Your task to perform on an android device: change your default location settings in chrome Image 0: 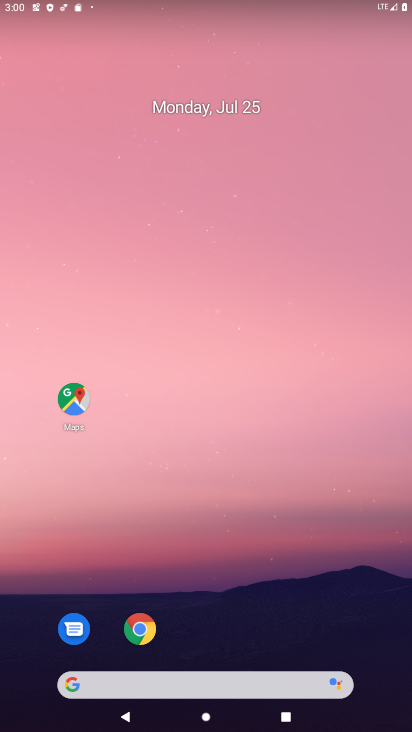
Step 0: drag from (214, 648) to (296, 229)
Your task to perform on an android device: change your default location settings in chrome Image 1: 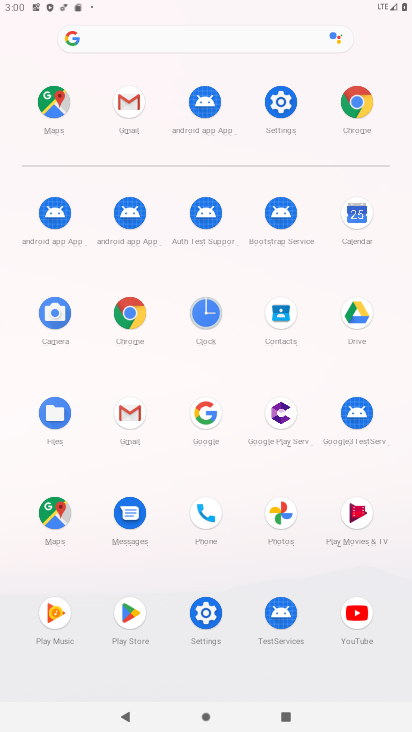
Step 1: click (125, 302)
Your task to perform on an android device: change your default location settings in chrome Image 2: 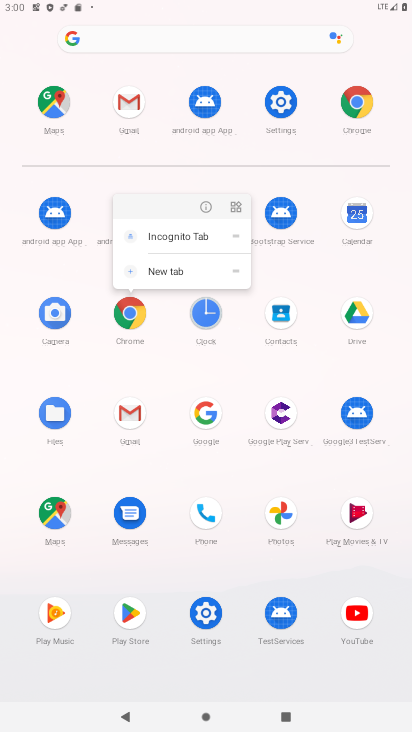
Step 2: click (201, 205)
Your task to perform on an android device: change your default location settings in chrome Image 3: 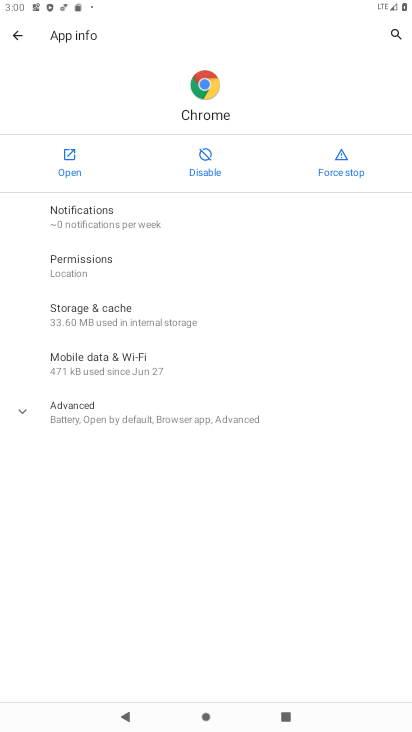
Step 3: click (68, 159)
Your task to perform on an android device: change your default location settings in chrome Image 4: 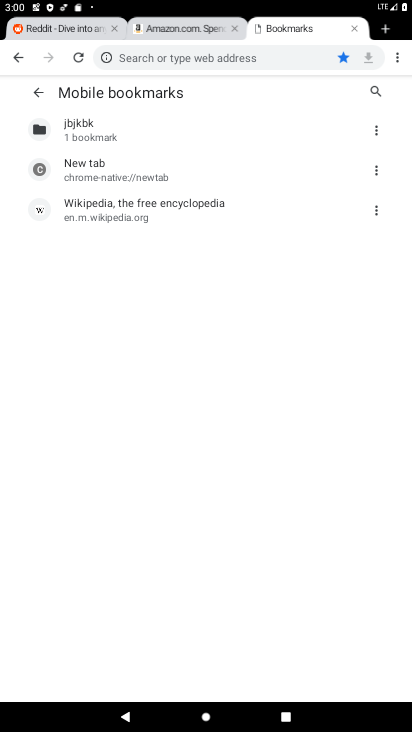
Step 4: drag from (397, 66) to (286, 293)
Your task to perform on an android device: change your default location settings in chrome Image 5: 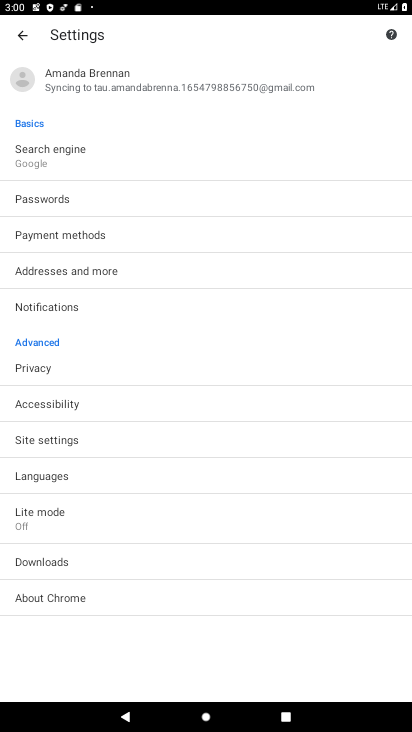
Step 5: click (61, 431)
Your task to perform on an android device: change your default location settings in chrome Image 6: 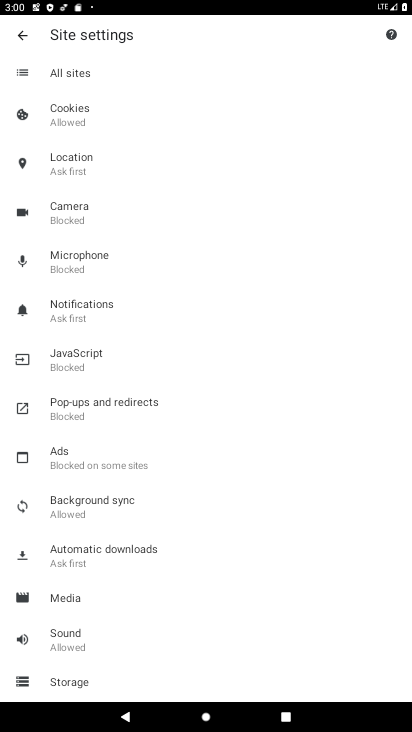
Step 6: click (83, 150)
Your task to perform on an android device: change your default location settings in chrome Image 7: 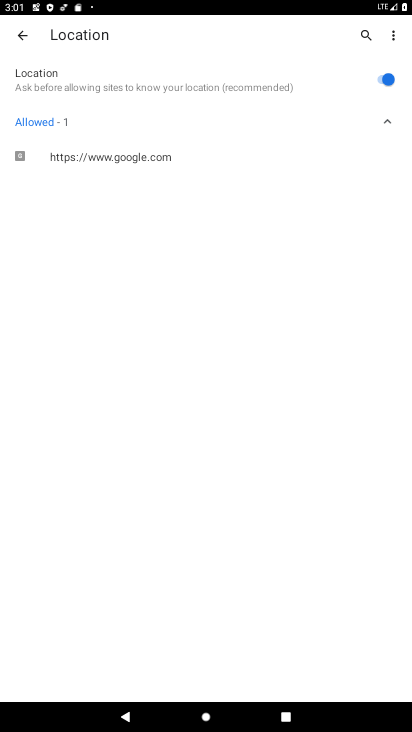
Step 7: click (383, 81)
Your task to perform on an android device: change your default location settings in chrome Image 8: 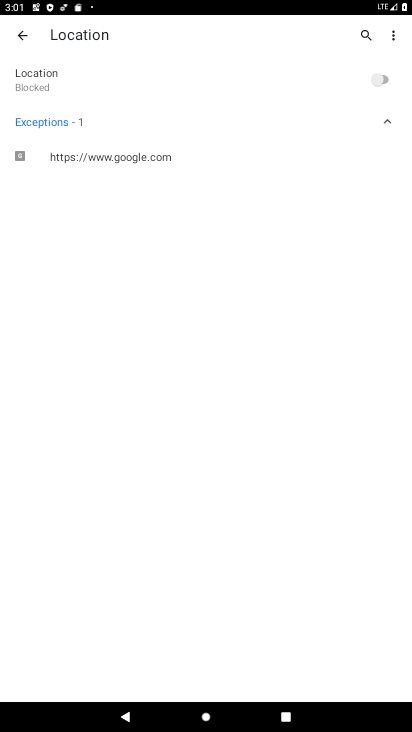
Step 8: task complete